Your task to perform on an android device: turn off notifications settings in the gmail app Image 0: 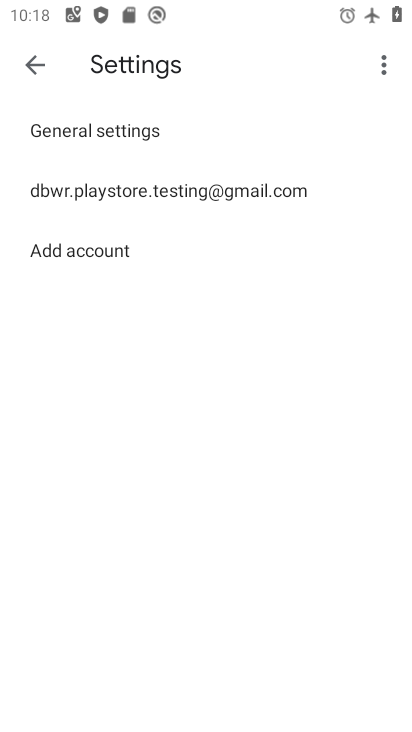
Step 0: press home button
Your task to perform on an android device: turn off notifications settings in the gmail app Image 1: 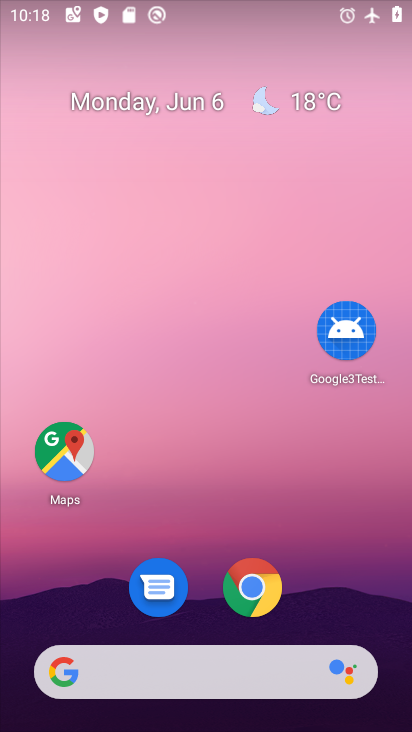
Step 1: drag from (292, 425) to (259, 76)
Your task to perform on an android device: turn off notifications settings in the gmail app Image 2: 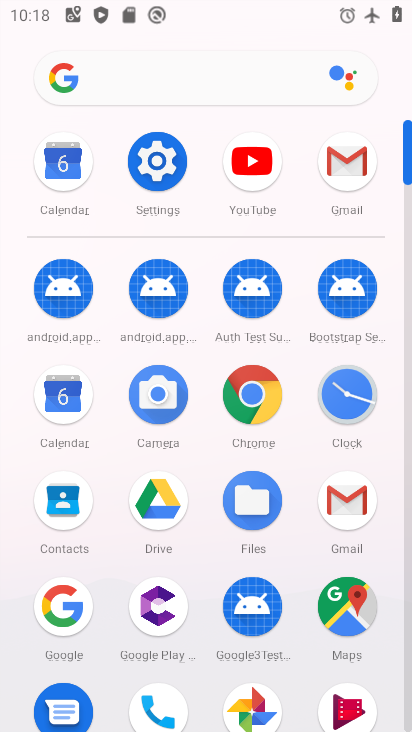
Step 2: click (362, 156)
Your task to perform on an android device: turn off notifications settings in the gmail app Image 3: 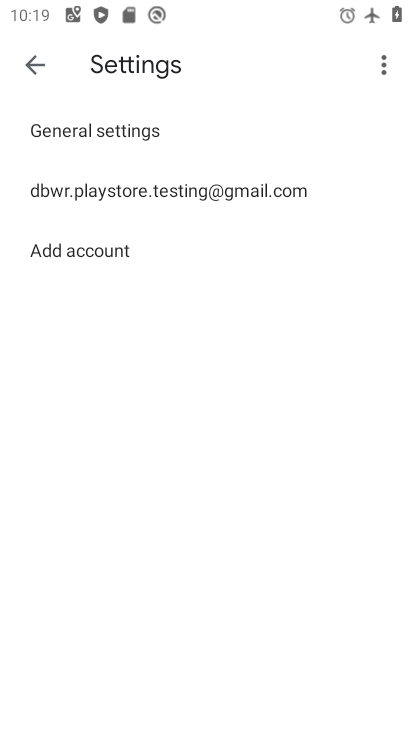
Step 3: click (104, 205)
Your task to perform on an android device: turn off notifications settings in the gmail app Image 4: 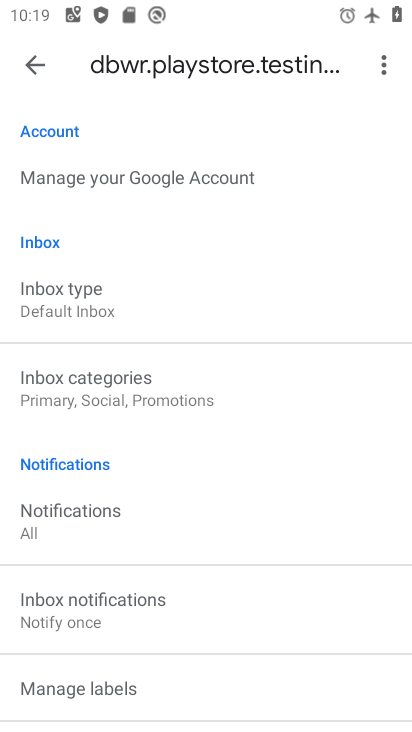
Step 4: drag from (148, 615) to (208, 339)
Your task to perform on an android device: turn off notifications settings in the gmail app Image 5: 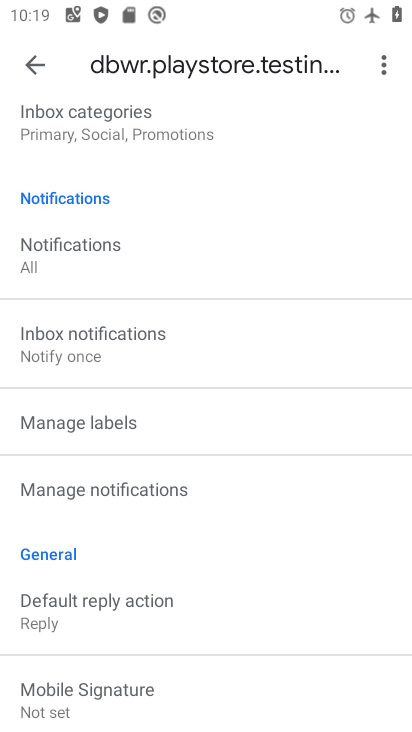
Step 5: click (102, 484)
Your task to perform on an android device: turn off notifications settings in the gmail app Image 6: 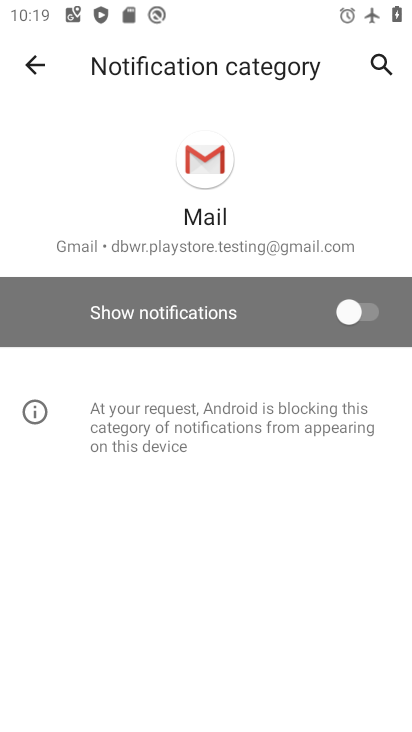
Step 6: task complete